Your task to perform on an android device: open device folders in google photos Image 0: 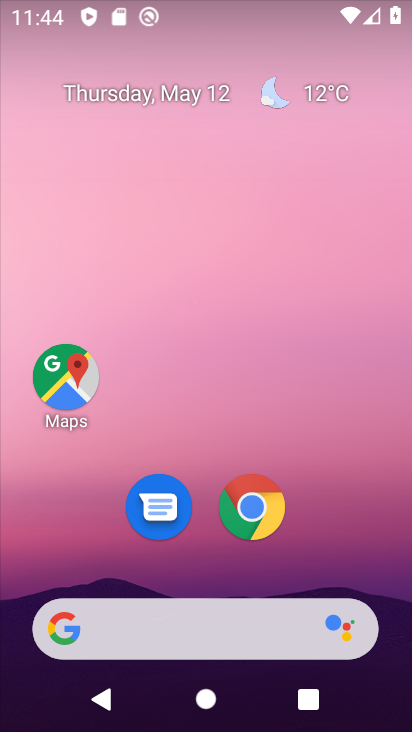
Step 0: drag from (344, 480) to (334, 119)
Your task to perform on an android device: open device folders in google photos Image 1: 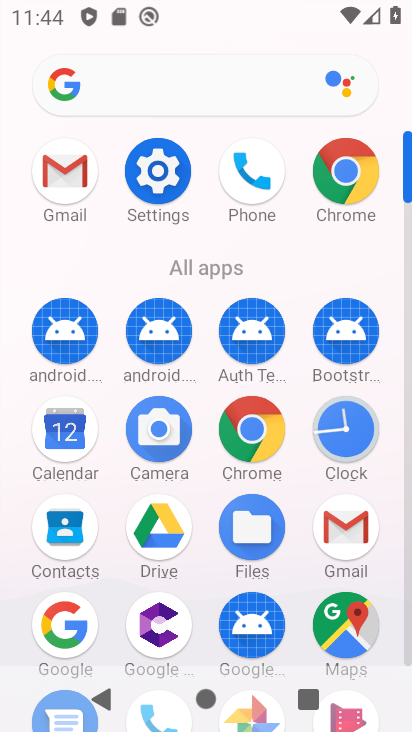
Step 1: drag from (313, 543) to (303, 277)
Your task to perform on an android device: open device folders in google photos Image 2: 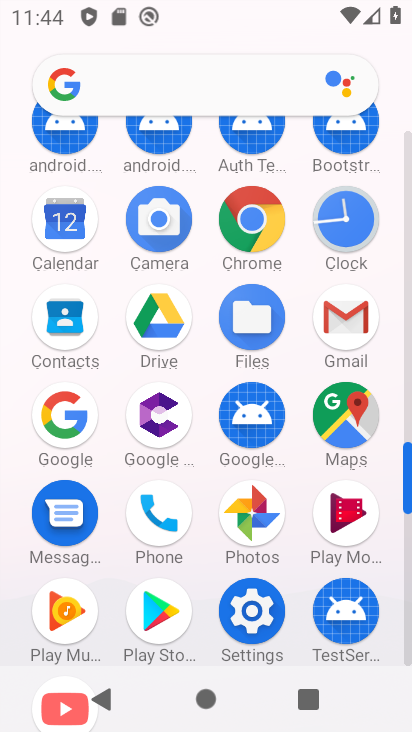
Step 2: click (257, 525)
Your task to perform on an android device: open device folders in google photos Image 3: 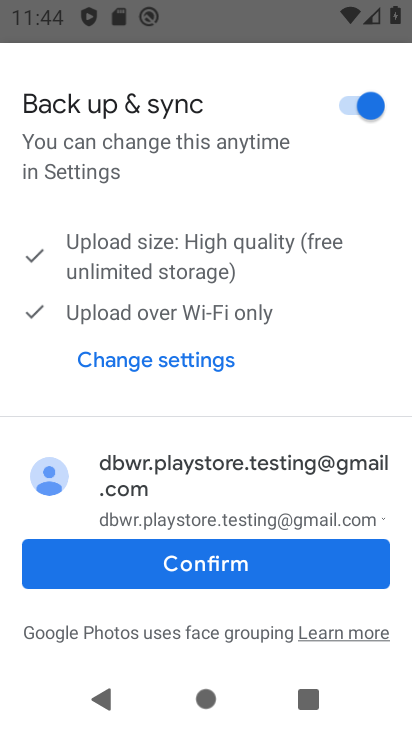
Step 3: click (282, 562)
Your task to perform on an android device: open device folders in google photos Image 4: 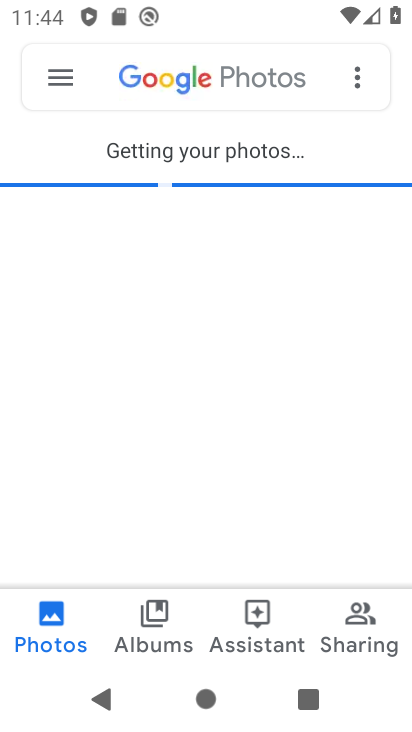
Step 4: click (43, 69)
Your task to perform on an android device: open device folders in google photos Image 5: 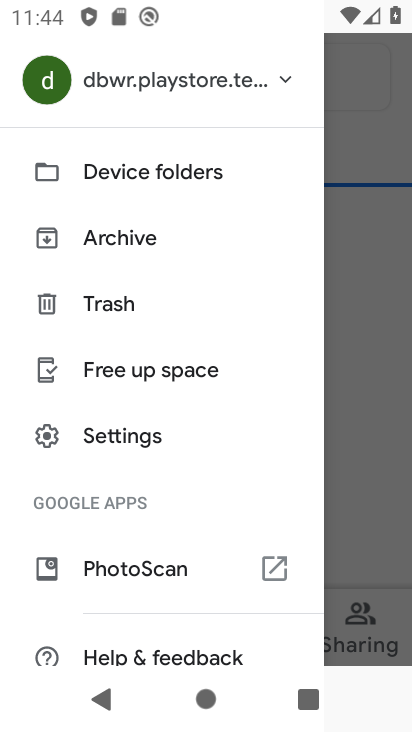
Step 5: click (141, 178)
Your task to perform on an android device: open device folders in google photos Image 6: 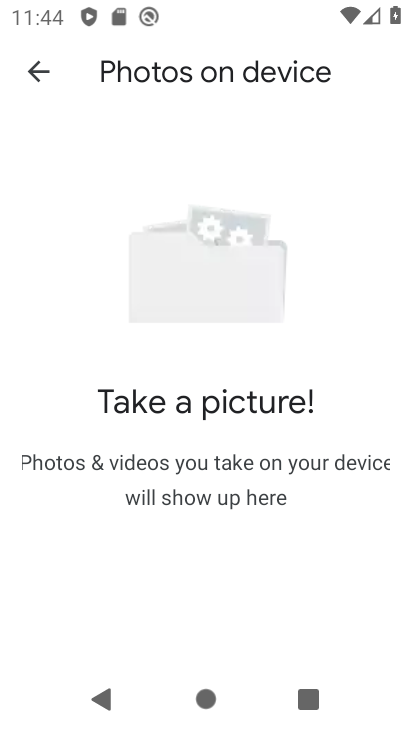
Step 6: task complete